Your task to perform on an android device: change notification settings in the gmail app Image 0: 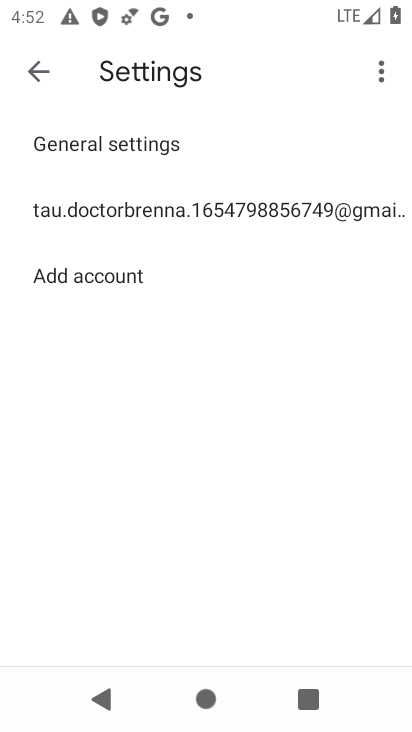
Step 0: click (226, 212)
Your task to perform on an android device: change notification settings in the gmail app Image 1: 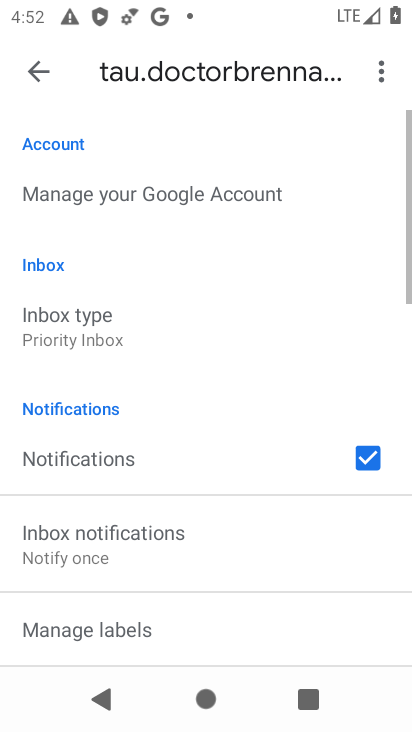
Step 1: drag from (275, 409) to (333, 70)
Your task to perform on an android device: change notification settings in the gmail app Image 2: 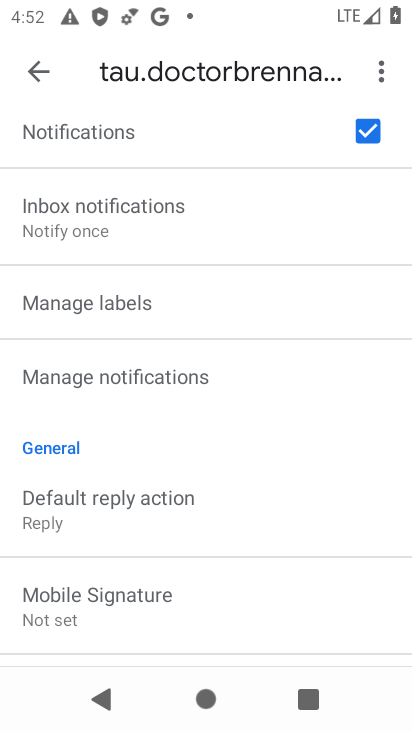
Step 2: click (139, 371)
Your task to perform on an android device: change notification settings in the gmail app Image 3: 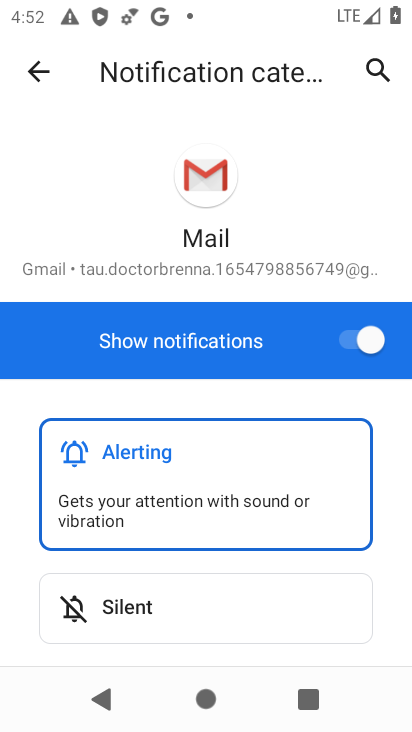
Step 3: click (340, 333)
Your task to perform on an android device: change notification settings in the gmail app Image 4: 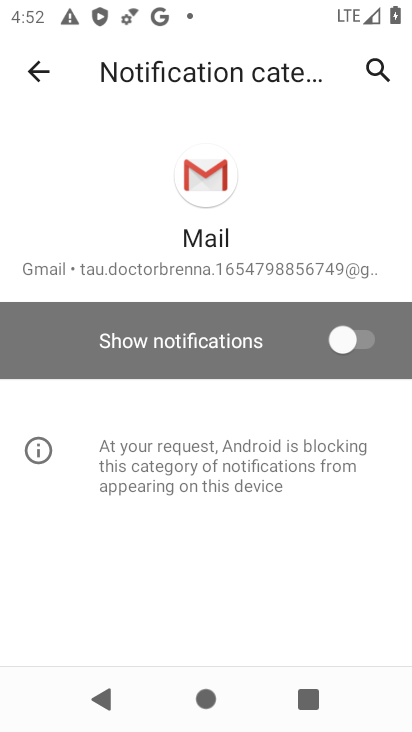
Step 4: task complete